Your task to perform on an android device: show emergency info Image 0: 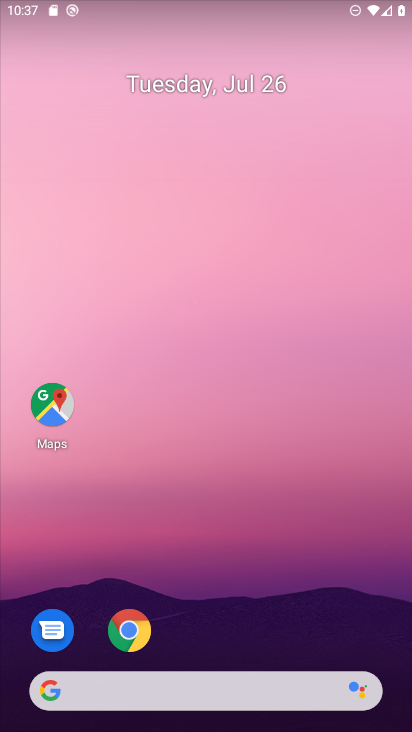
Step 0: drag from (377, 632) to (350, 147)
Your task to perform on an android device: show emergency info Image 1: 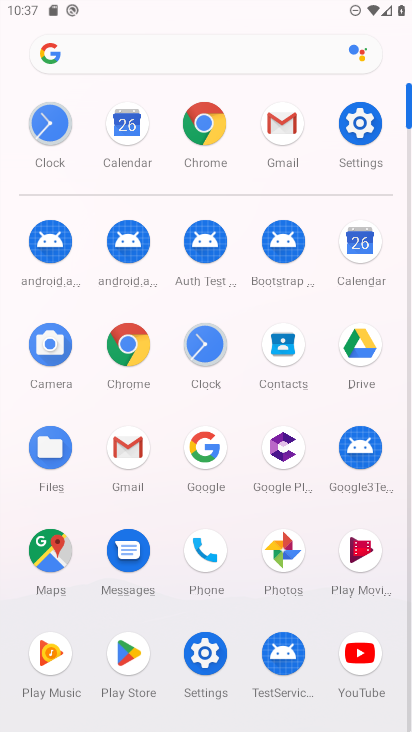
Step 1: click (206, 654)
Your task to perform on an android device: show emergency info Image 2: 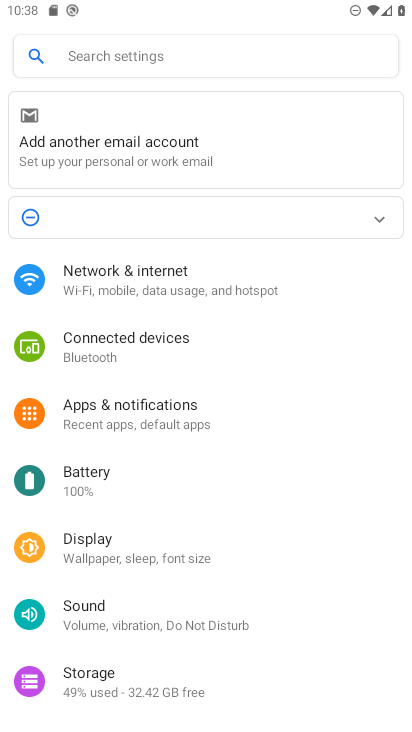
Step 2: drag from (298, 600) to (292, 237)
Your task to perform on an android device: show emergency info Image 3: 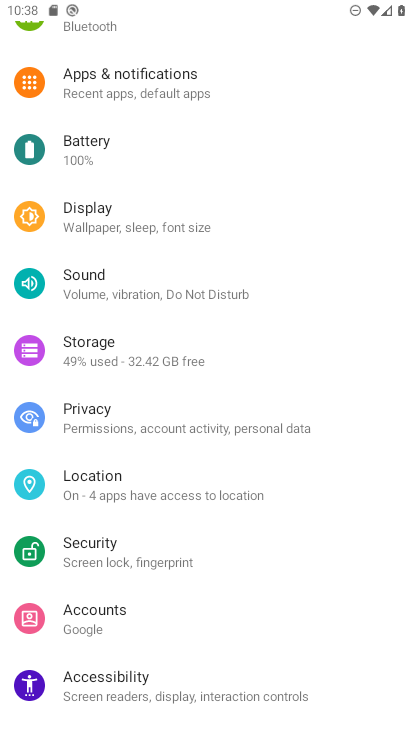
Step 3: drag from (298, 628) to (289, 265)
Your task to perform on an android device: show emergency info Image 4: 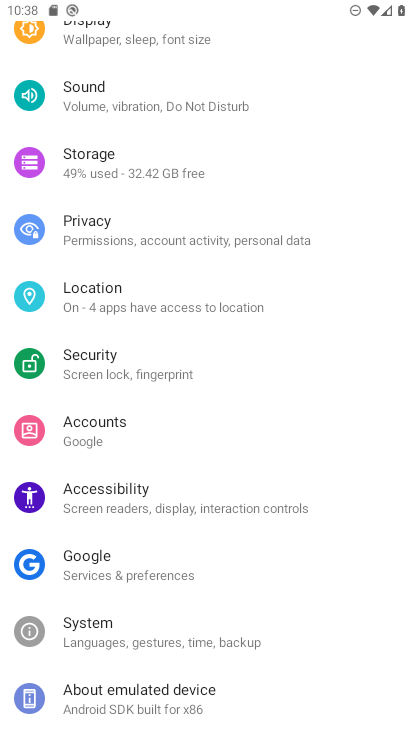
Step 4: click (120, 691)
Your task to perform on an android device: show emergency info Image 5: 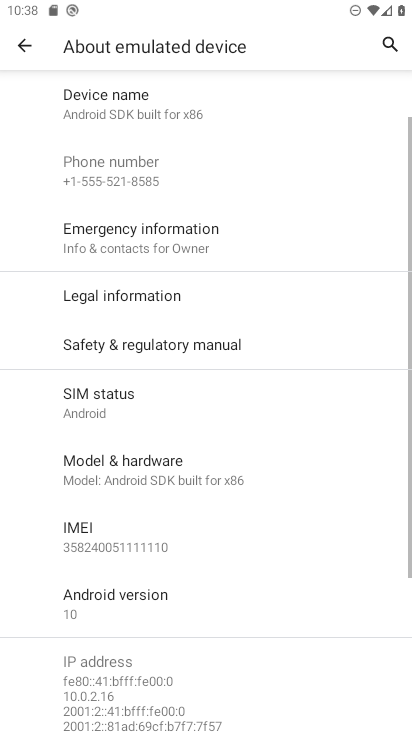
Step 5: click (108, 222)
Your task to perform on an android device: show emergency info Image 6: 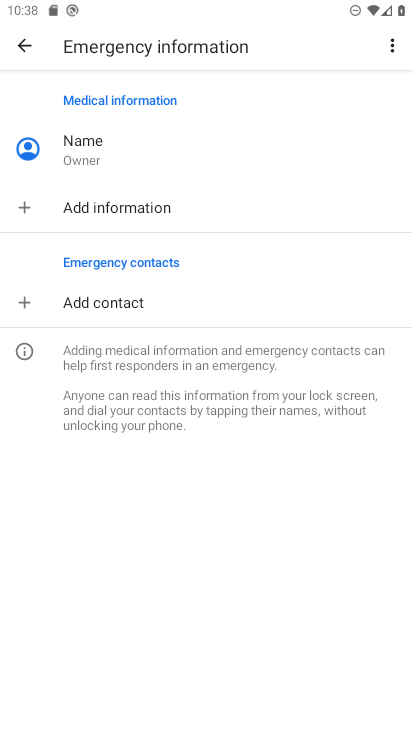
Step 6: task complete